Your task to perform on an android device: Open calendar and show me the second week of next month Image 0: 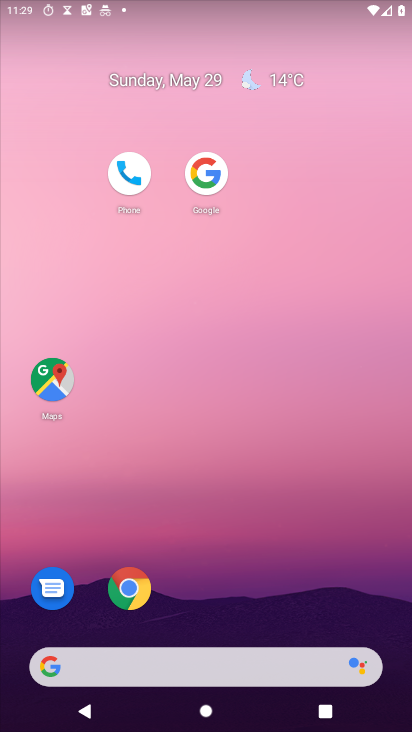
Step 0: drag from (257, 653) to (215, 384)
Your task to perform on an android device: Open calendar and show me the second week of next month Image 1: 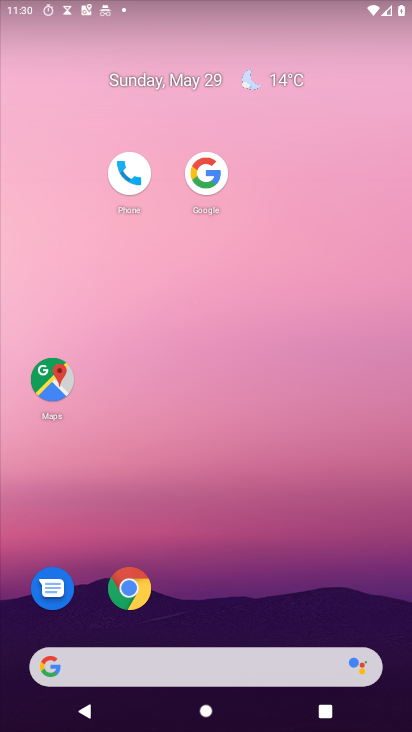
Step 1: drag from (246, 698) to (179, 121)
Your task to perform on an android device: Open calendar and show me the second week of next month Image 2: 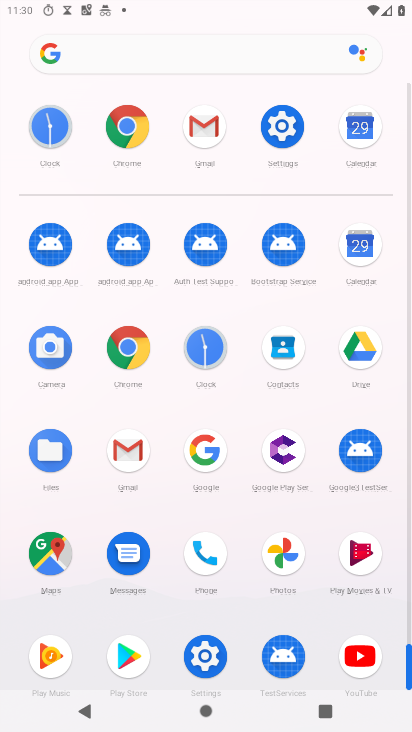
Step 2: click (357, 252)
Your task to perform on an android device: Open calendar and show me the second week of next month Image 3: 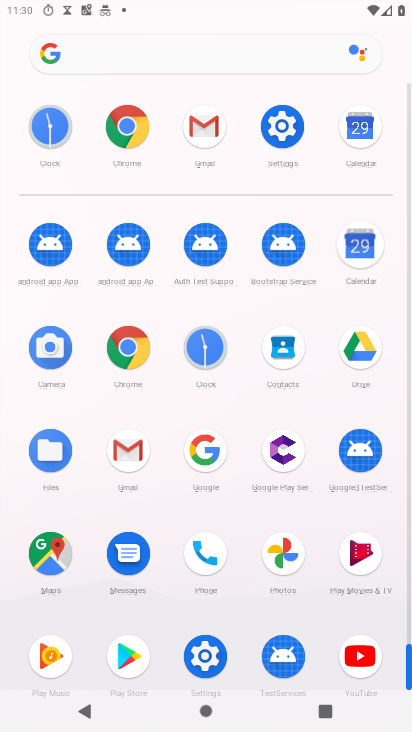
Step 3: click (357, 252)
Your task to perform on an android device: Open calendar and show me the second week of next month Image 4: 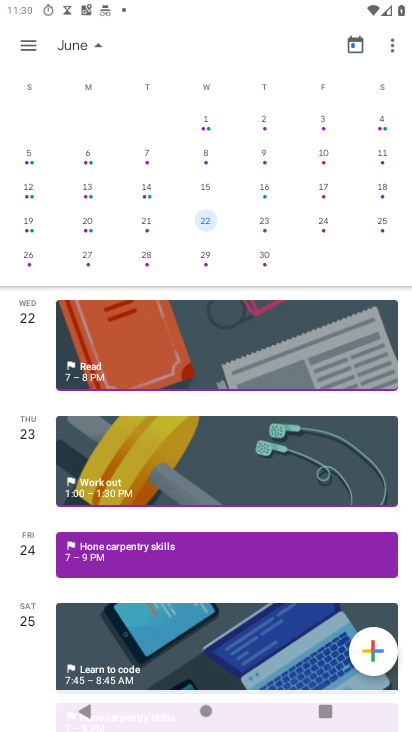
Step 4: click (210, 156)
Your task to perform on an android device: Open calendar and show me the second week of next month Image 5: 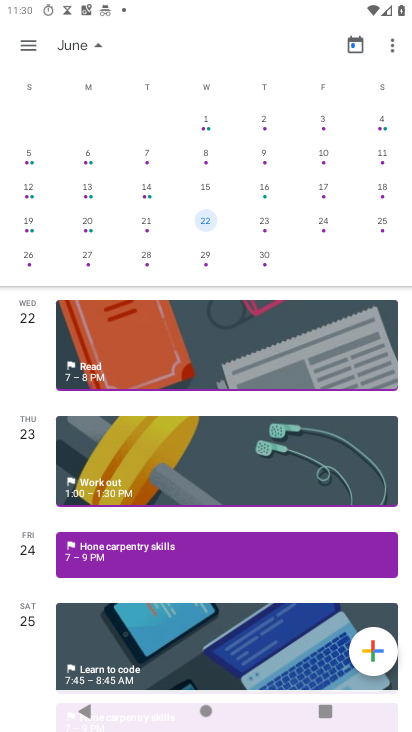
Step 5: click (210, 156)
Your task to perform on an android device: Open calendar and show me the second week of next month Image 6: 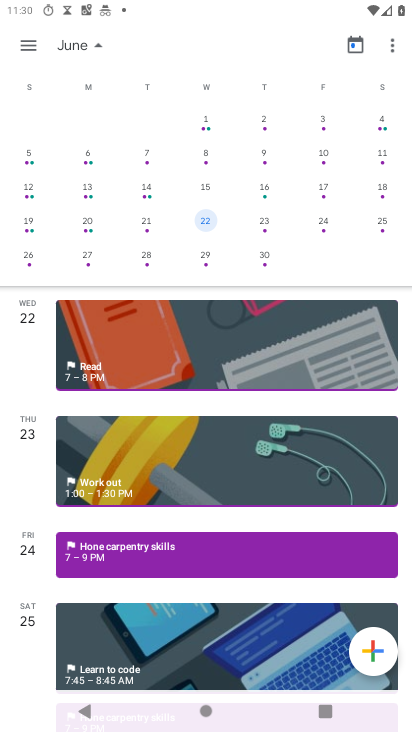
Step 6: click (212, 154)
Your task to perform on an android device: Open calendar and show me the second week of next month Image 7: 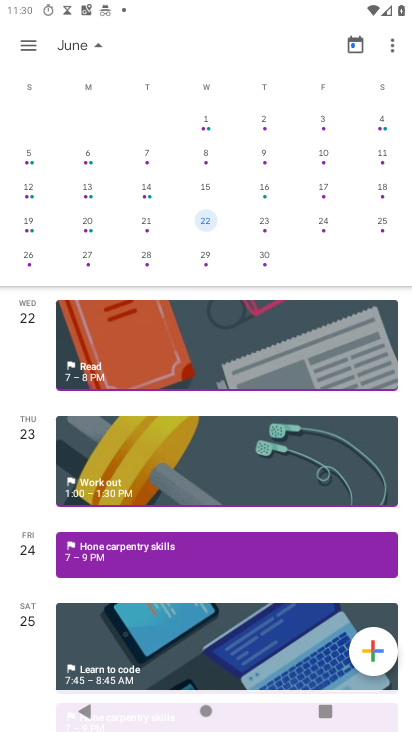
Step 7: click (203, 154)
Your task to perform on an android device: Open calendar and show me the second week of next month Image 8: 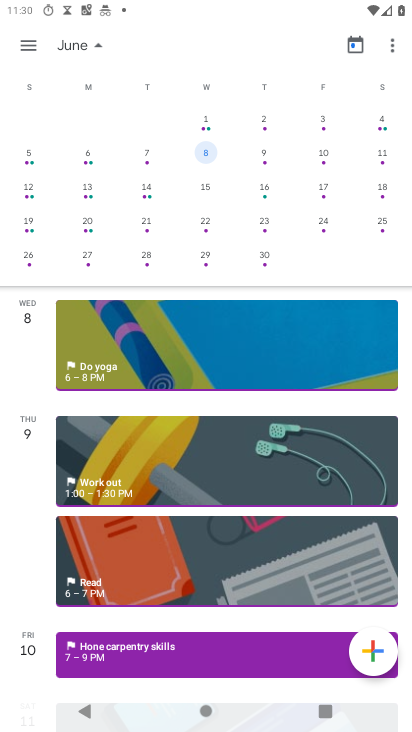
Step 8: click (209, 154)
Your task to perform on an android device: Open calendar and show me the second week of next month Image 9: 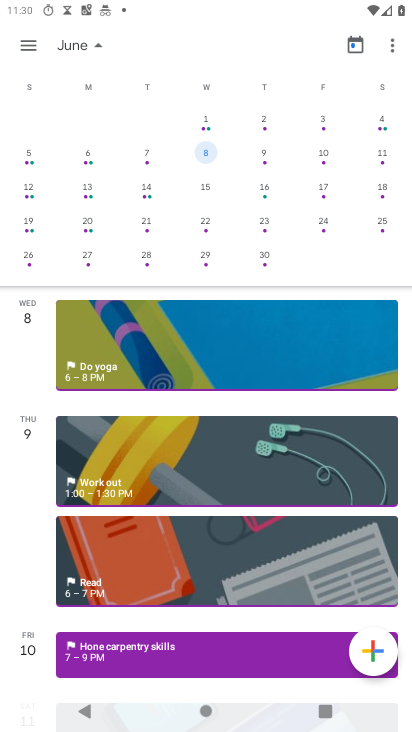
Step 9: task complete